Your task to perform on an android device: turn off notifications in google photos Image 0: 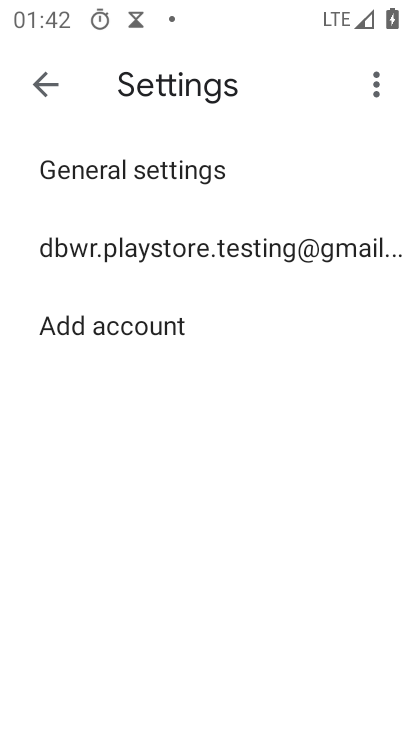
Step 0: press home button
Your task to perform on an android device: turn off notifications in google photos Image 1: 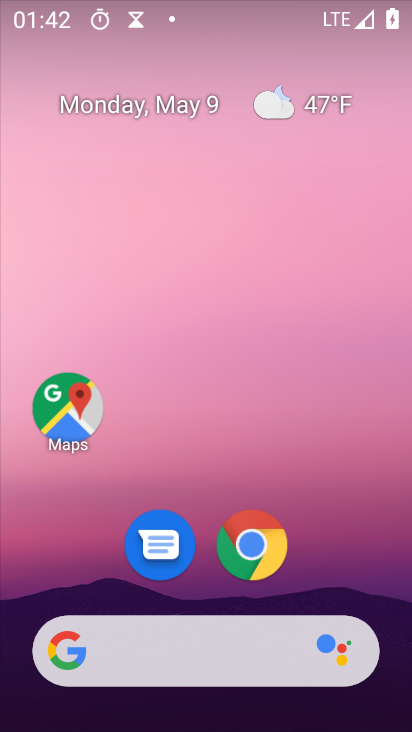
Step 1: drag from (302, 607) to (318, 18)
Your task to perform on an android device: turn off notifications in google photos Image 2: 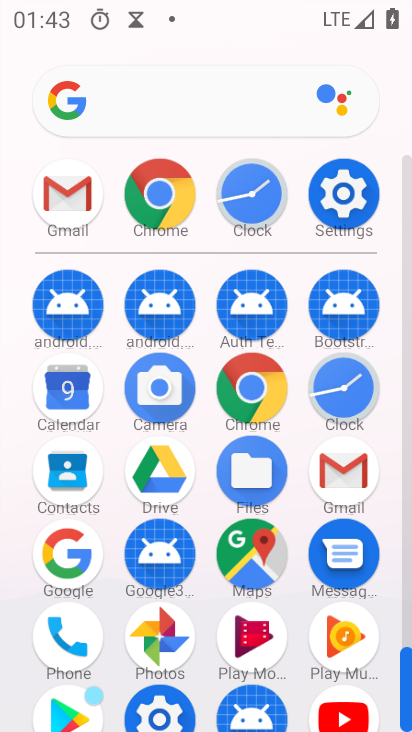
Step 2: drag from (288, 623) to (302, 372)
Your task to perform on an android device: turn off notifications in google photos Image 3: 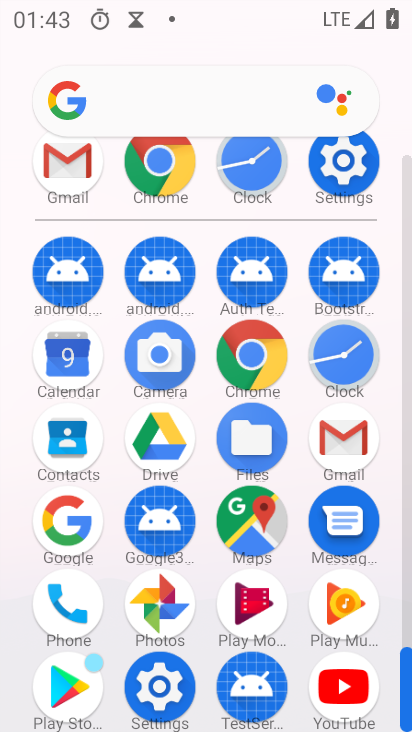
Step 3: click (165, 603)
Your task to perform on an android device: turn off notifications in google photos Image 4: 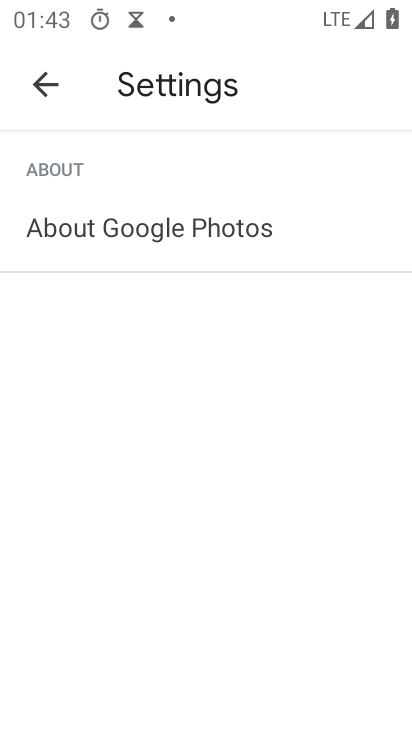
Step 4: press back button
Your task to perform on an android device: turn off notifications in google photos Image 5: 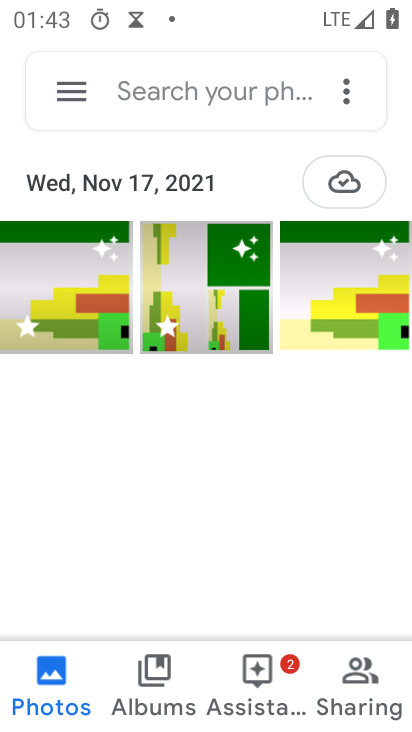
Step 5: click (70, 82)
Your task to perform on an android device: turn off notifications in google photos Image 6: 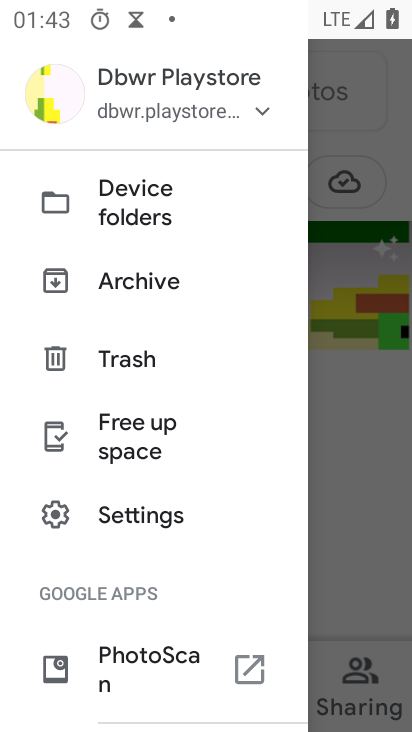
Step 6: click (200, 509)
Your task to perform on an android device: turn off notifications in google photos Image 7: 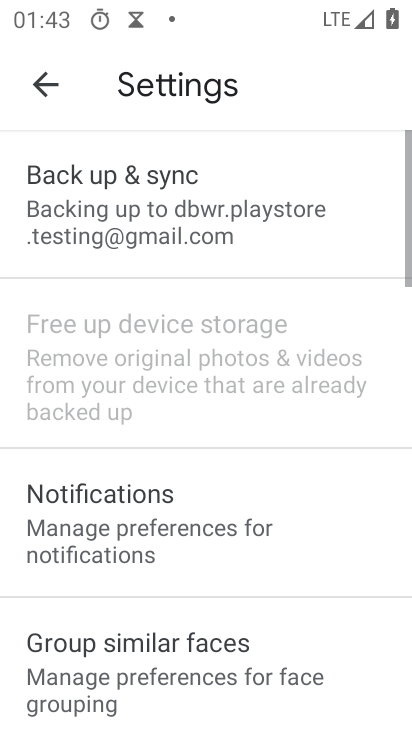
Step 7: drag from (249, 663) to (245, 484)
Your task to perform on an android device: turn off notifications in google photos Image 8: 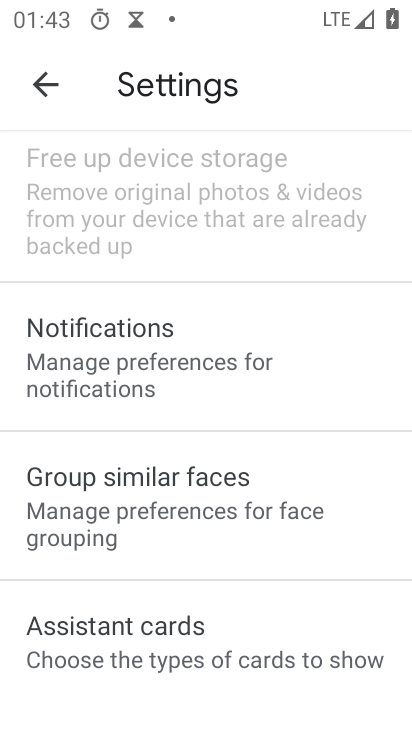
Step 8: click (237, 387)
Your task to perform on an android device: turn off notifications in google photos Image 9: 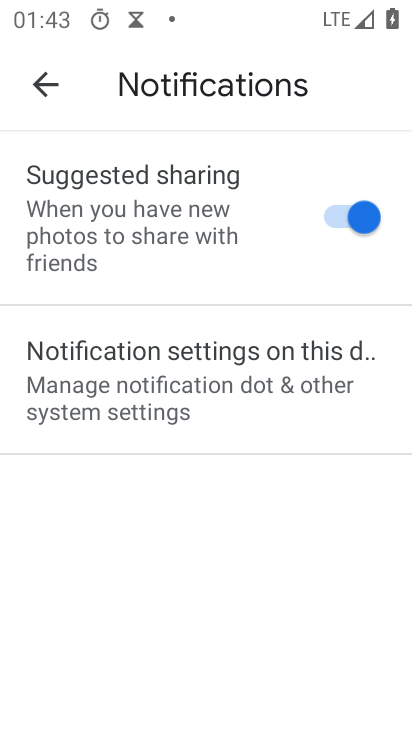
Step 9: click (297, 414)
Your task to perform on an android device: turn off notifications in google photos Image 10: 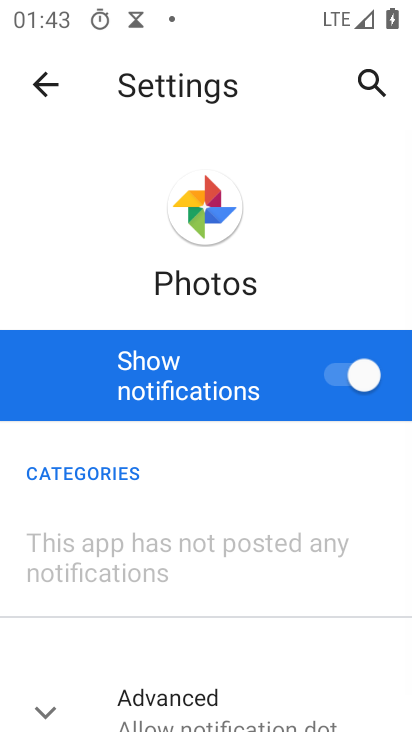
Step 10: click (326, 379)
Your task to perform on an android device: turn off notifications in google photos Image 11: 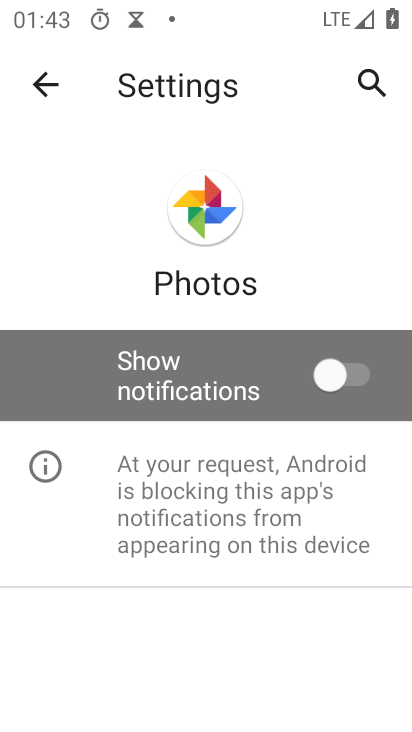
Step 11: task complete